Your task to perform on an android device: Show me productivity apps on the Play Store Image 0: 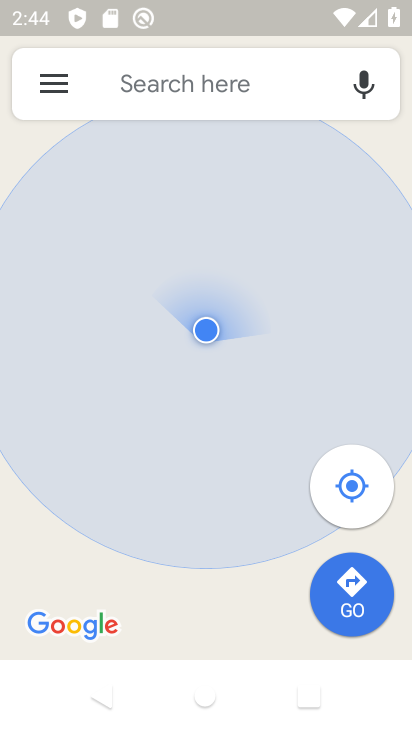
Step 0: press back button
Your task to perform on an android device: Show me productivity apps on the Play Store Image 1: 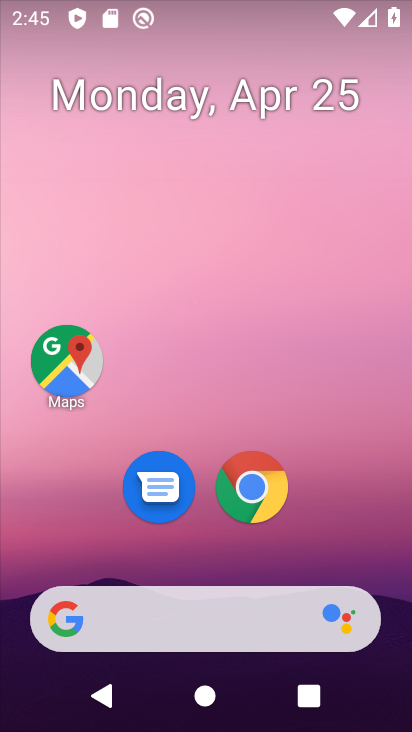
Step 1: drag from (182, 475) to (243, 104)
Your task to perform on an android device: Show me productivity apps on the Play Store Image 2: 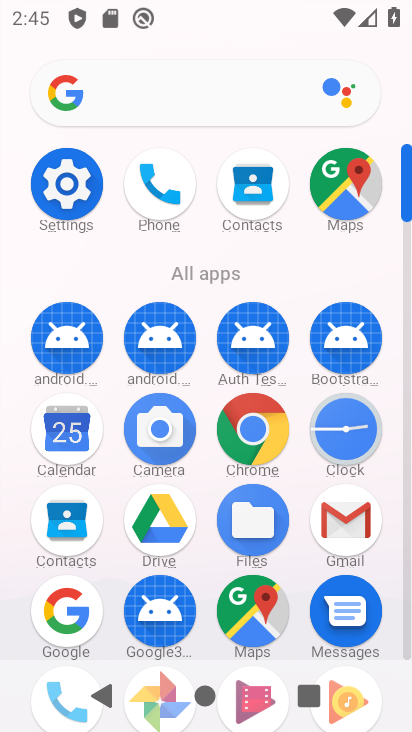
Step 2: drag from (105, 661) to (163, 361)
Your task to perform on an android device: Show me productivity apps on the Play Store Image 3: 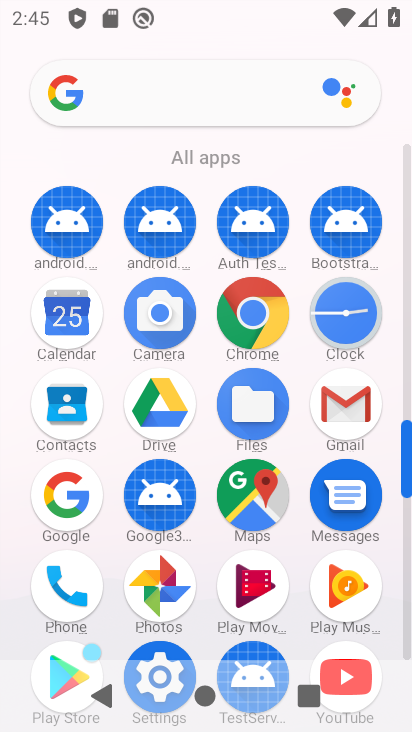
Step 3: click (74, 649)
Your task to perform on an android device: Show me productivity apps on the Play Store Image 4: 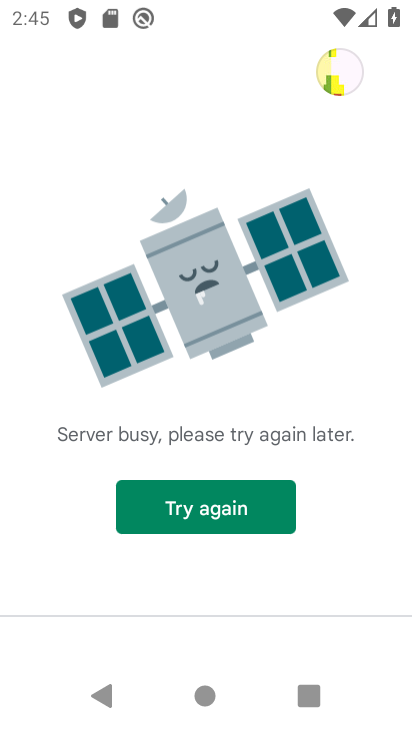
Step 4: task complete